Your task to perform on an android device: turn off notifications in google photos Image 0: 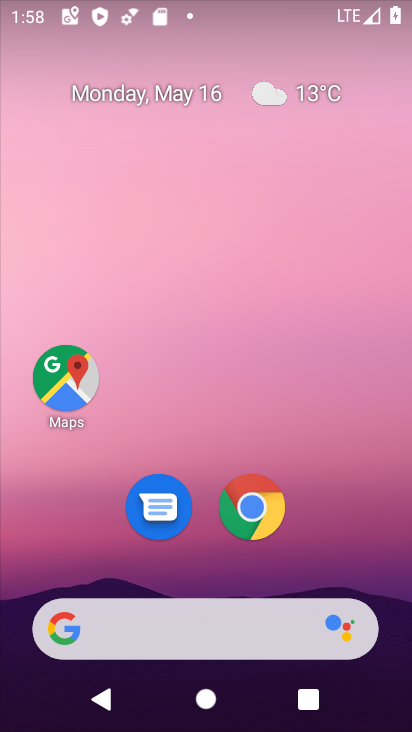
Step 0: drag from (309, 175) to (250, 0)
Your task to perform on an android device: turn off notifications in google photos Image 1: 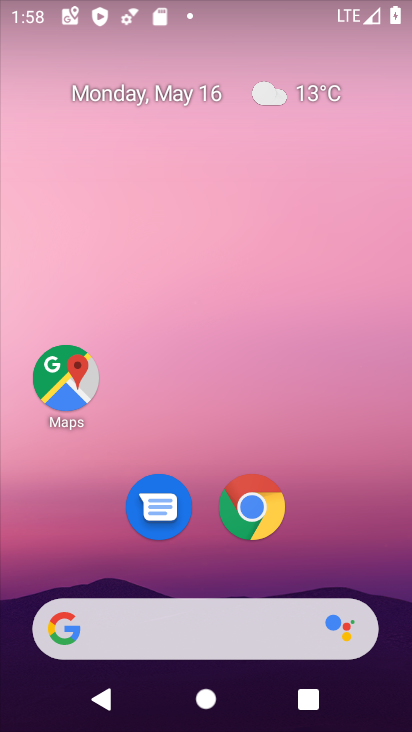
Step 1: drag from (351, 541) to (285, 17)
Your task to perform on an android device: turn off notifications in google photos Image 2: 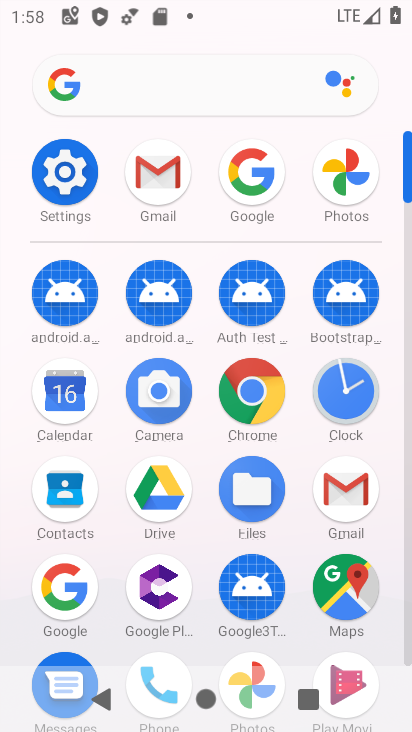
Step 2: click (345, 170)
Your task to perform on an android device: turn off notifications in google photos Image 3: 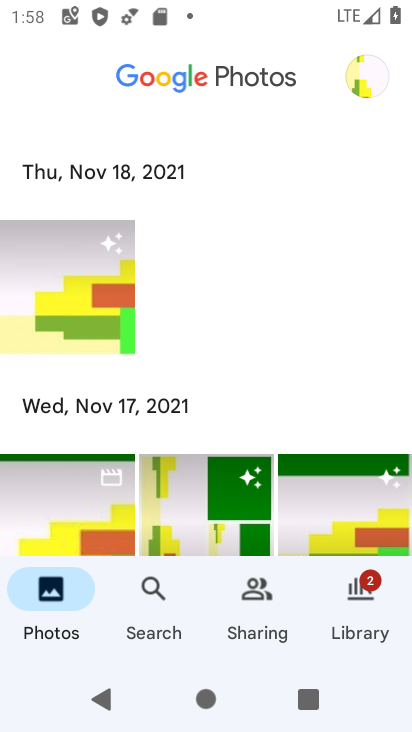
Step 3: click (367, 85)
Your task to perform on an android device: turn off notifications in google photos Image 4: 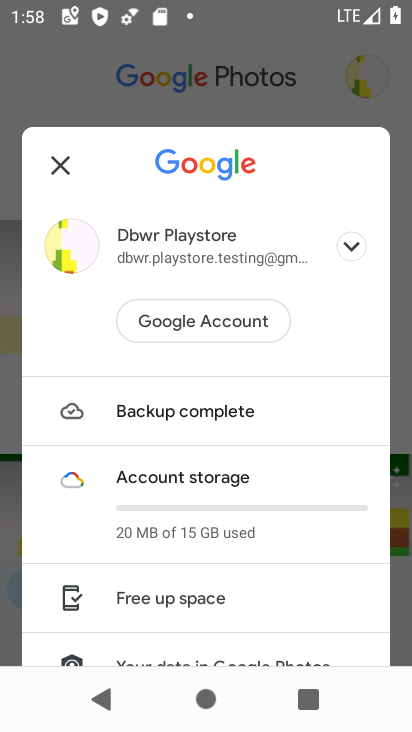
Step 4: drag from (214, 573) to (200, 144)
Your task to perform on an android device: turn off notifications in google photos Image 5: 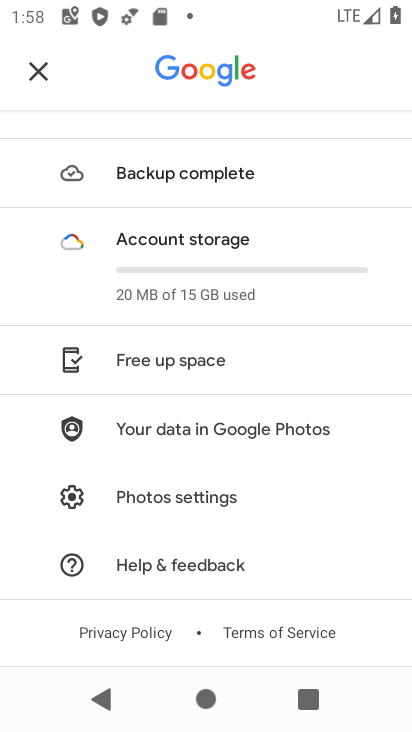
Step 5: drag from (209, 596) to (209, 386)
Your task to perform on an android device: turn off notifications in google photos Image 6: 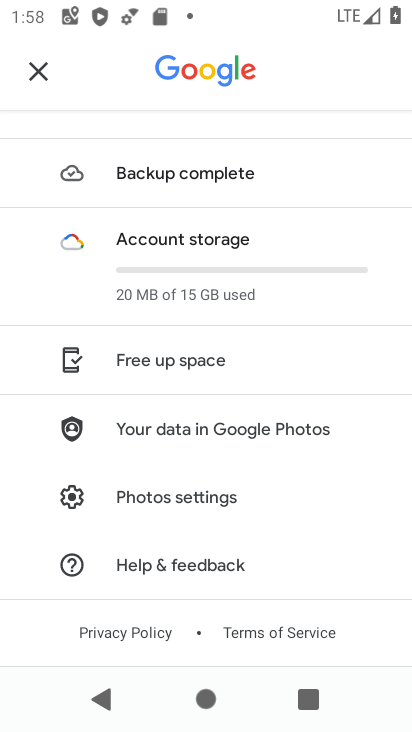
Step 6: click (208, 502)
Your task to perform on an android device: turn off notifications in google photos Image 7: 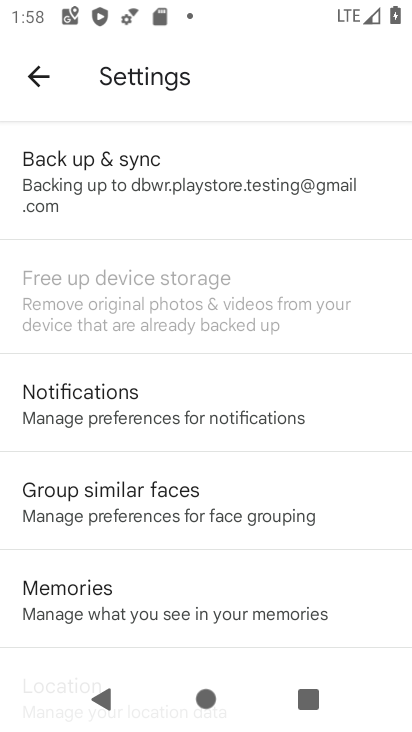
Step 7: click (117, 405)
Your task to perform on an android device: turn off notifications in google photos Image 8: 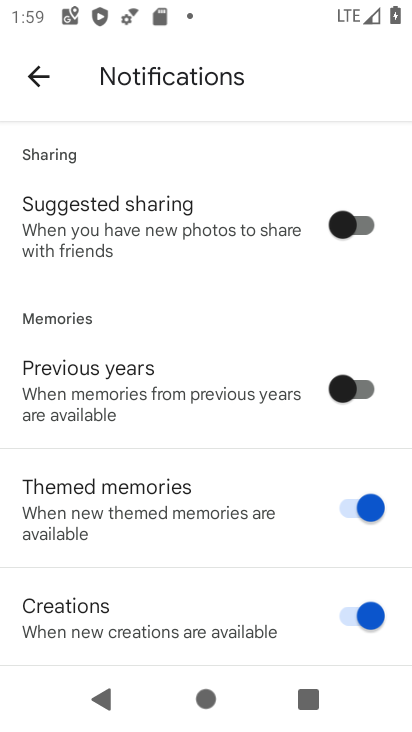
Step 8: click (366, 510)
Your task to perform on an android device: turn off notifications in google photos Image 9: 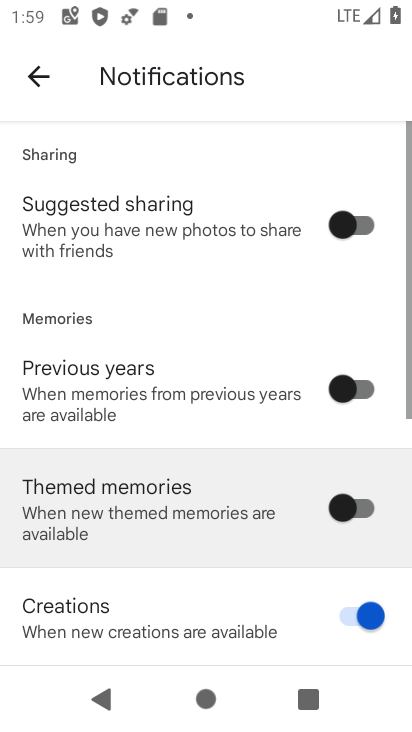
Step 9: click (370, 616)
Your task to perform on an android device: turn off notifications in google photos Image 10: 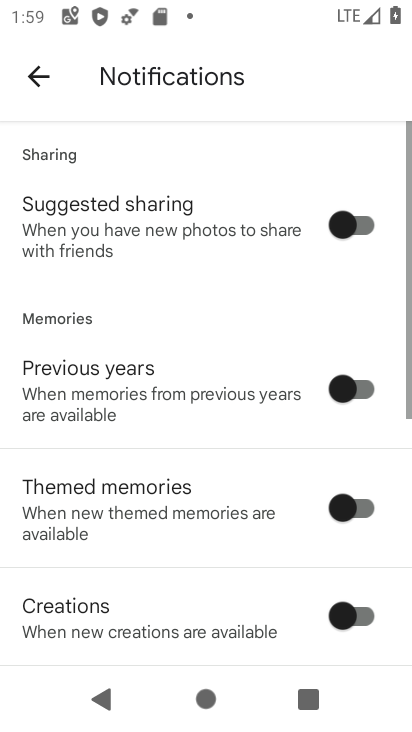
Step 10: task complete